Your task to perform on an android device: turn on data saver in the chrome app Image 0: 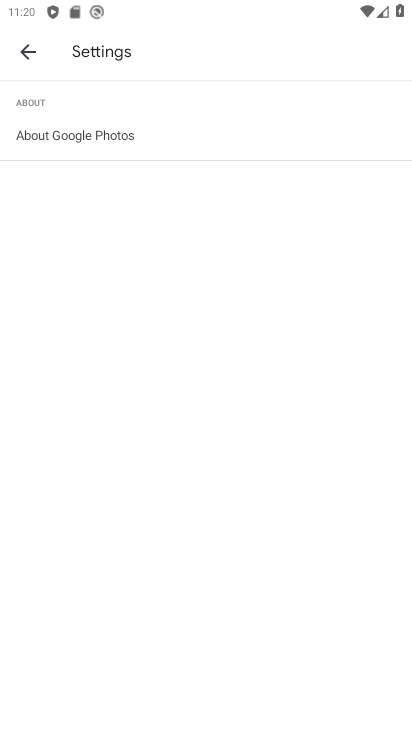
Step 0: press home button
Your task to perform on an android device: turn on data saver in the chrome app Image 1: 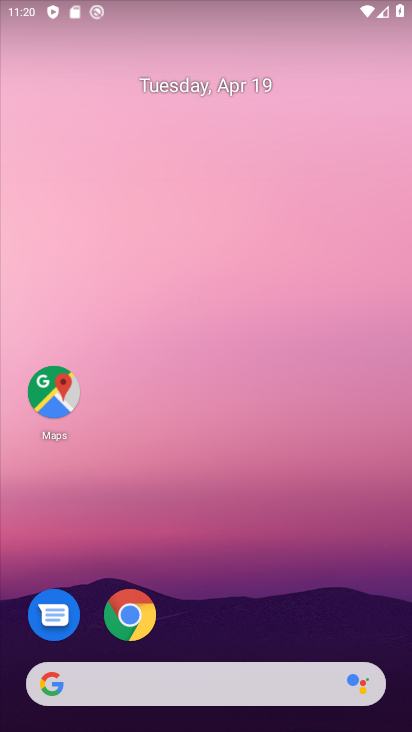
Step 1: click (122, 611)
Your task to perform on an android device: turn on data saver in the chrome app Image 2: 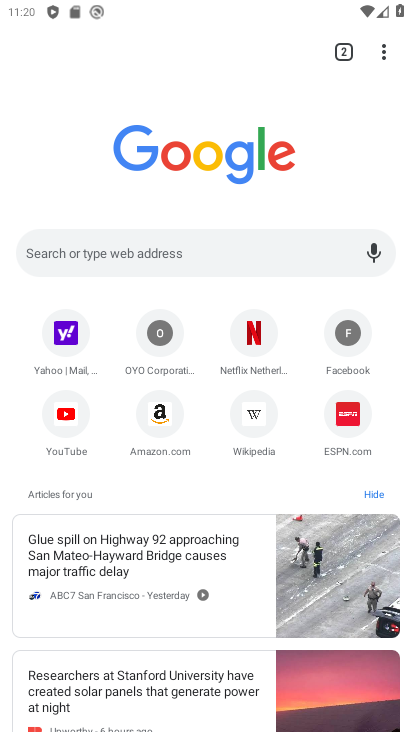
Step 2: click (380, 53)
Your task to perform on an android device: turn on data saver in the chrome app Image 3: 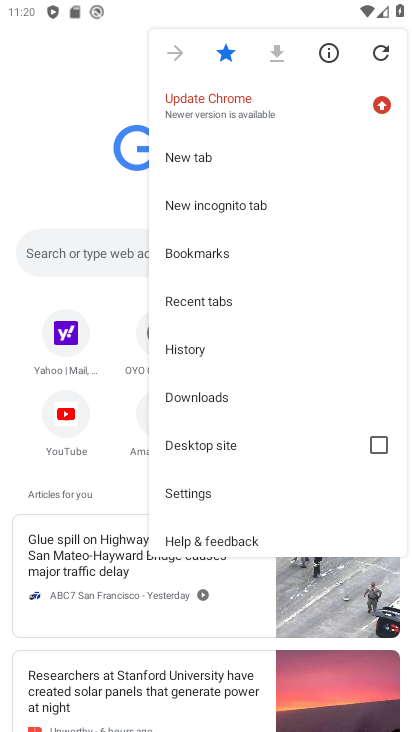
Step 3: click (195, 497)
Your task to perform on an android device: turn on data saver in the chrome app Image 4: 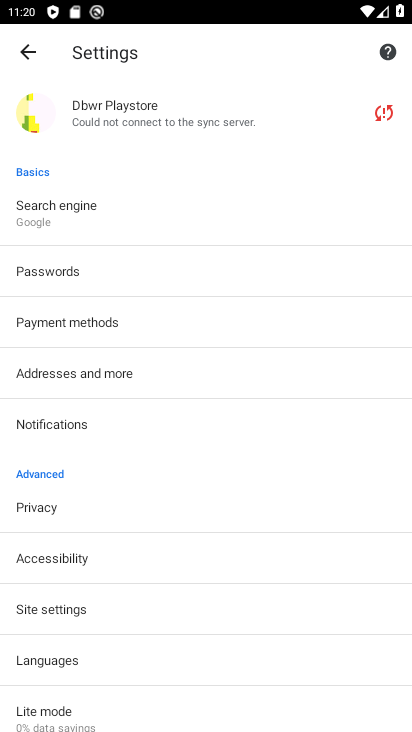
Step 4: click (96, 722)
Your task to perform on an android device: turn on data saver in the chrome app Image 5: 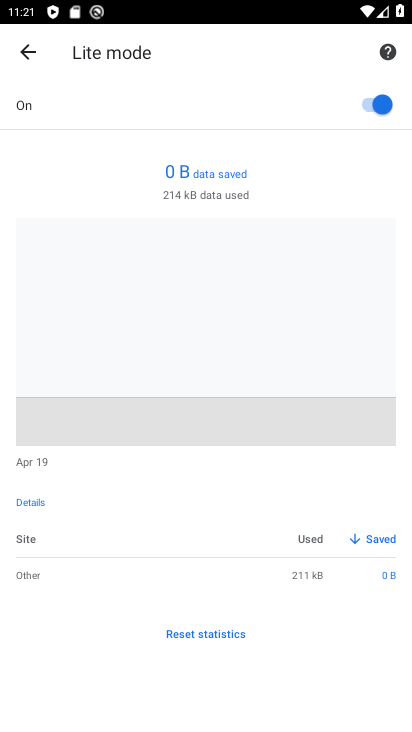
Step 5: task complete